Your task to perform on an android device: add a contact Image 0: 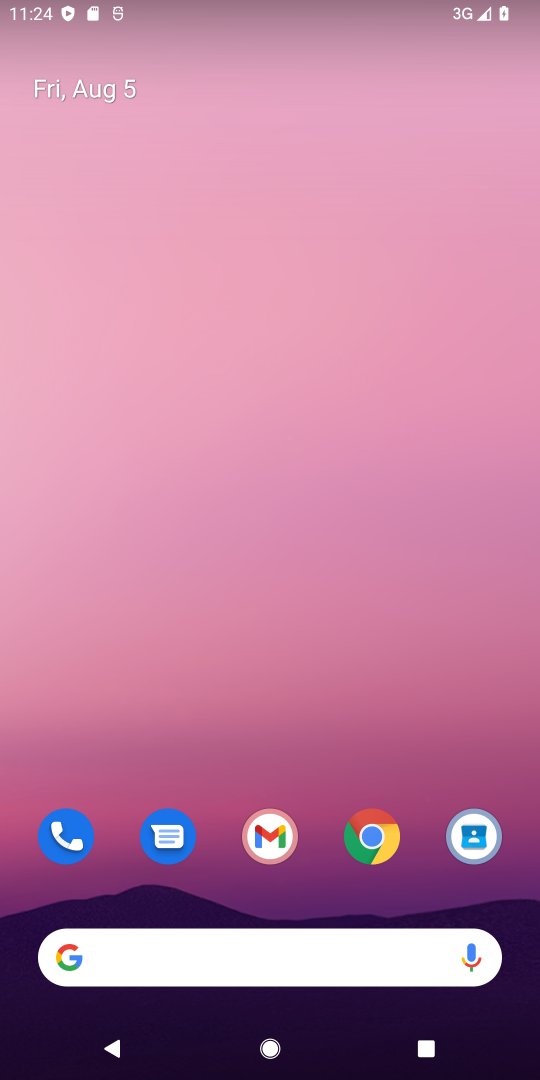
Step 0: drag from (322, 819) to (402, 86)
Your task to perform on an android device: add a contact Image 1: 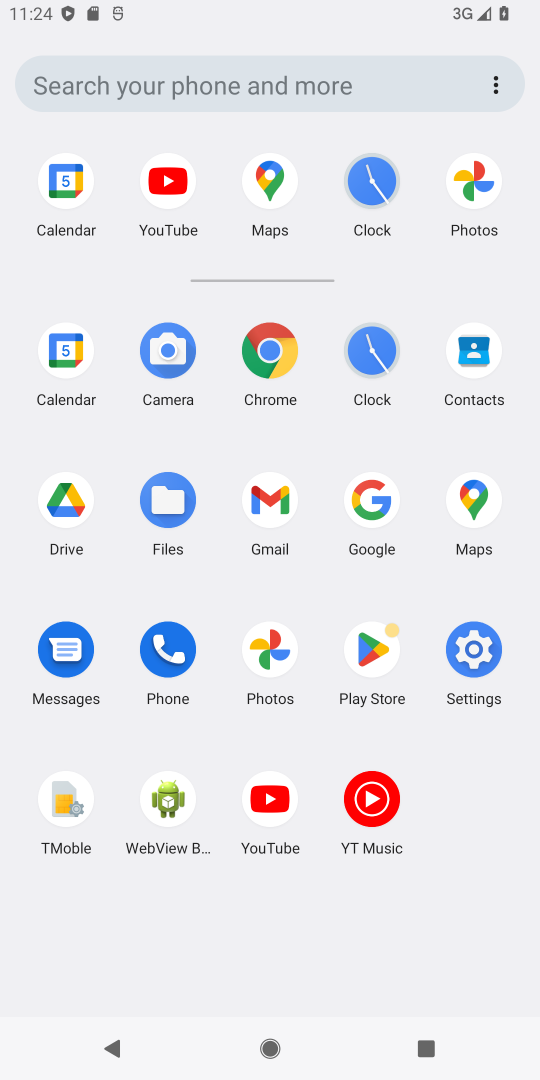
Step 1: click (469, 349)
Your task to perform on an android device: add a contact Image 2: 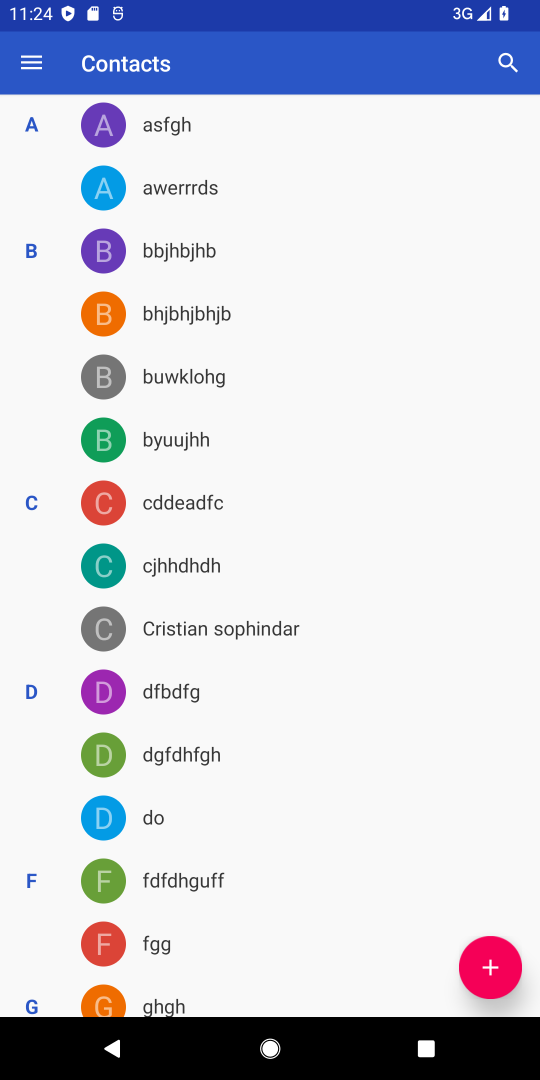
Step 2: click (500, 954)
Your task to perform on an android device: add a contact Image 3: 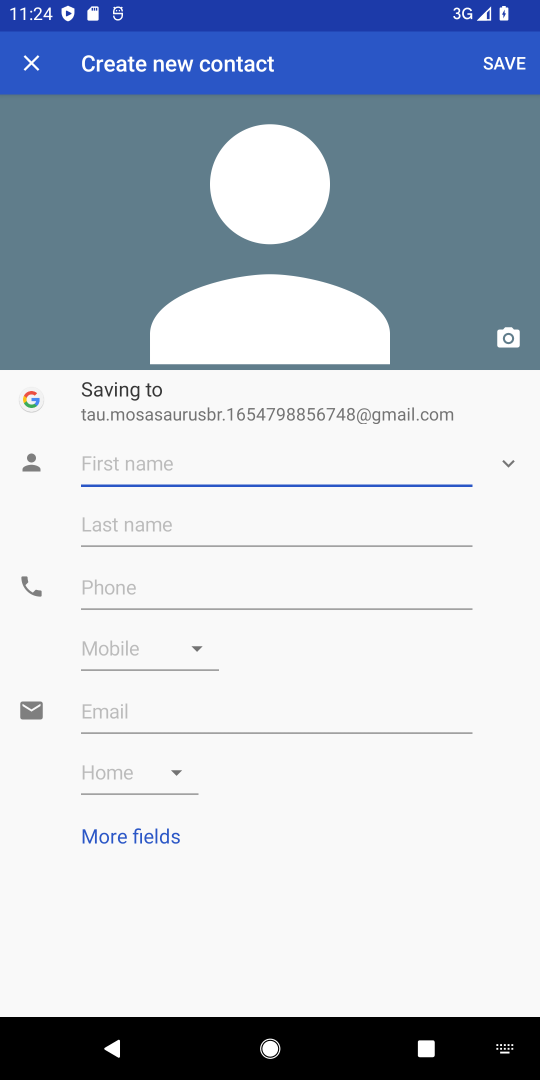
Step 3: type "fuee"
Your task to perform on an android device: add a contact Image 4: 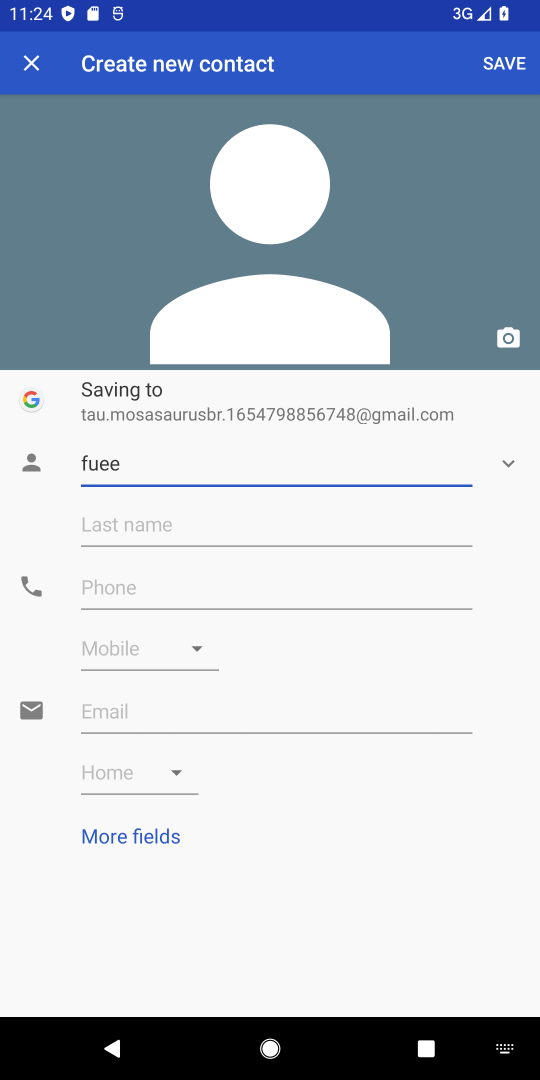
Step 4: click (488, 61)
Your task to perform on an android device: add a contact Image 5: 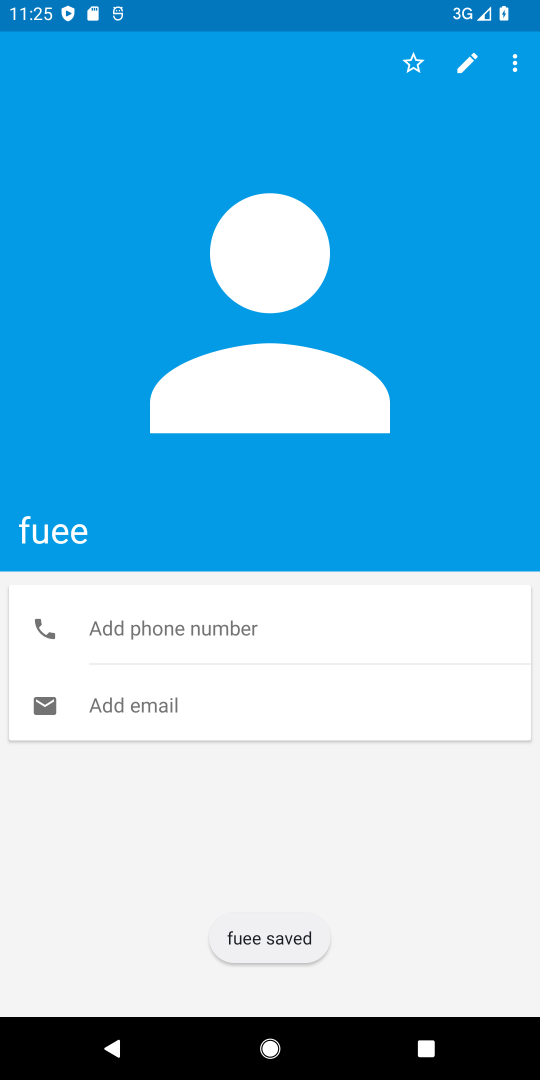
Step 5: task complete